Your task to perform on an android device: open app "PlayWell" (install if not already installed) Image 0: 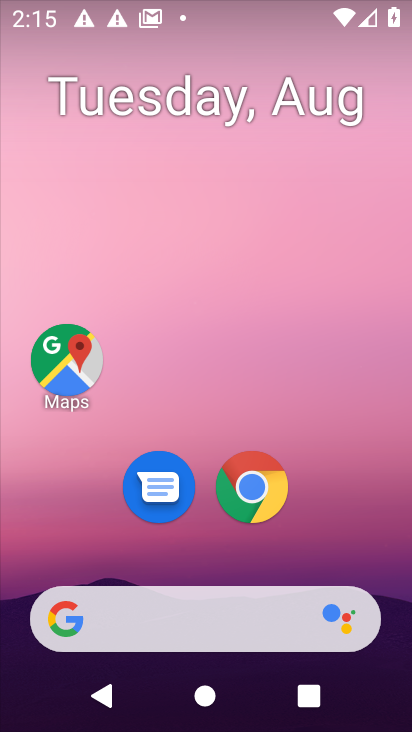
Step 0: drag from (206, 639) to (224, 157)
Your task to perform on an android device: open app "PlayWell" (install if not already installed) Image 1: 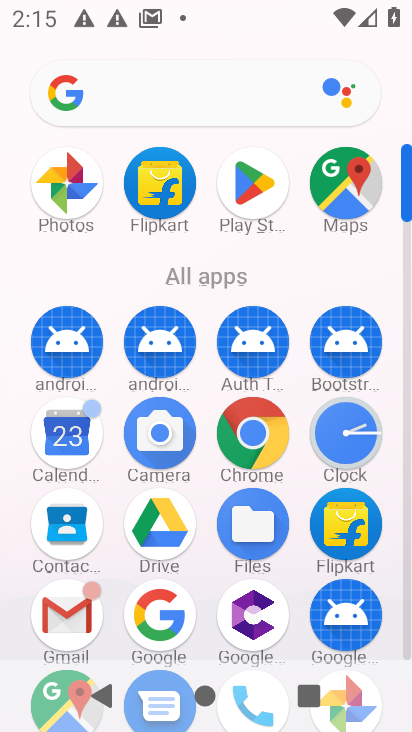
Step 1: click (255, 182)
Your task to perform on an android device: open app "PlayWell" (install if not already installed) Image 2: 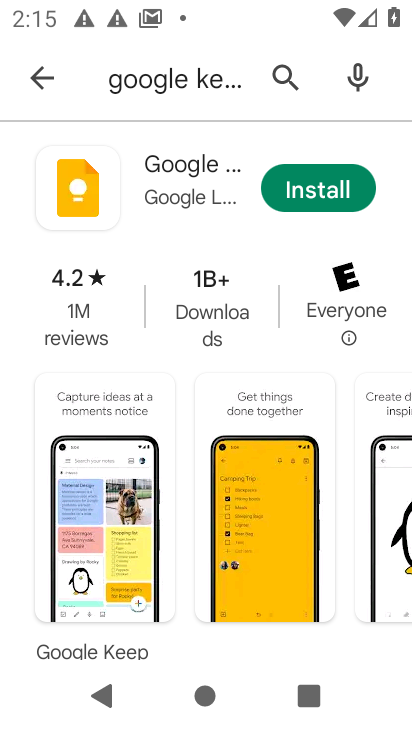
Step 2: press back button
Your task to perform on an android device: open app "PlayWell" (install if not already installed) Image 3: 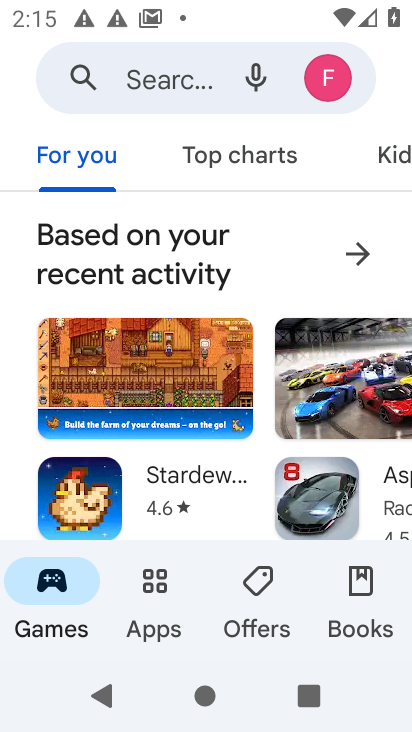
Step 3: click (169, 85)
Your task to perform on an android device: open app "PlayWell" (install if not already installed) Image 4: 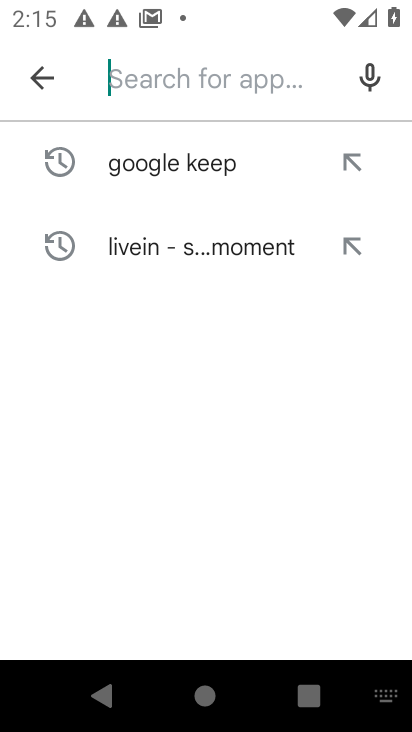
Step 4: type "PlayWell"
Your task to perform on an android device: open app "PlayWell" (install if not already installed) Image 5: 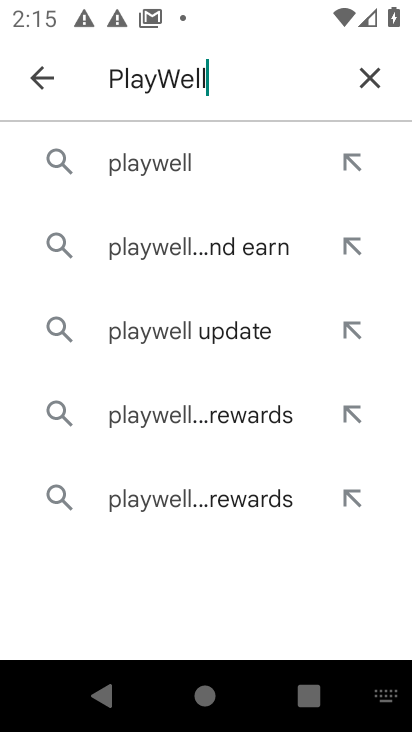
Step 5: click (143, 163)
Your task to perform on an android device: open app "PlayWell" (install if not already installed) Image 6: 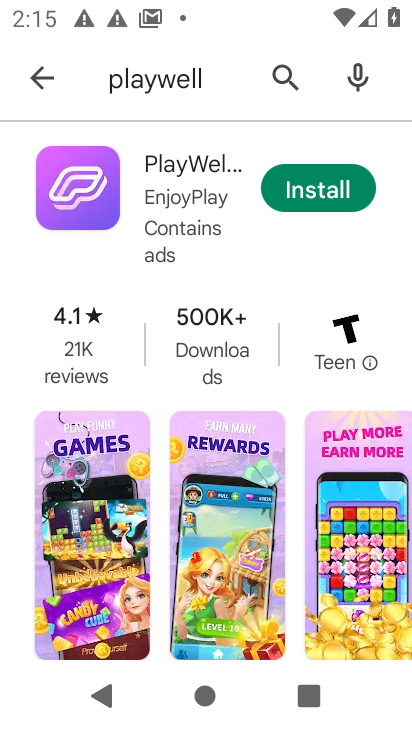
Step 6: click (326, 196)
Your task to perform on an android device: open app "PlayWell" (install if not already installed) Image 7: 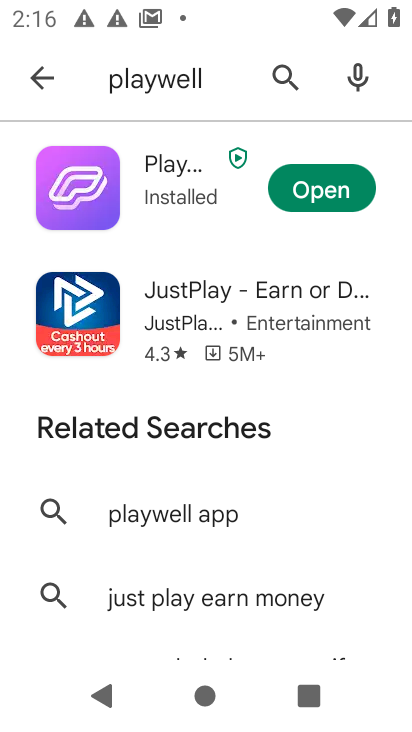
Step 7: click (322, 197)
Your task to perform on an android device: open app "PlayWell" (install if not already installed) Image 8: 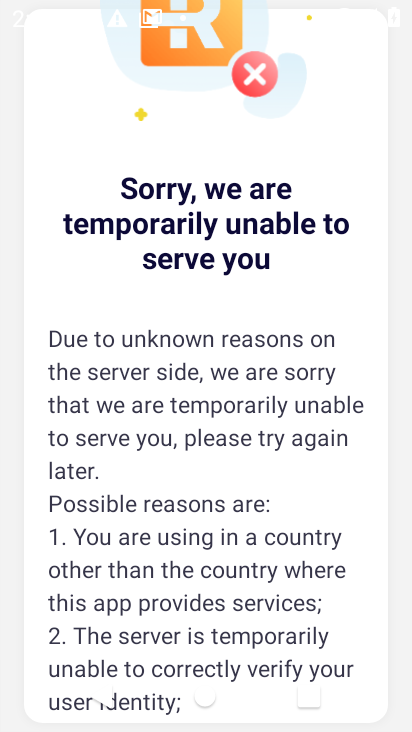
Step 8: task complete